Your task to perform on an android device: move an email to a new category in the gmail app Image 0: 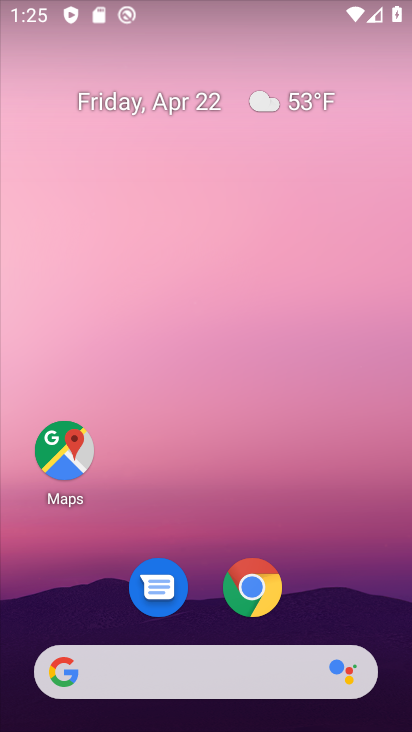
Step 0: drag from (194, 548) to (239, 148)
Your task to perform on an android device: move an email to a new category in the gmail app Image 1: 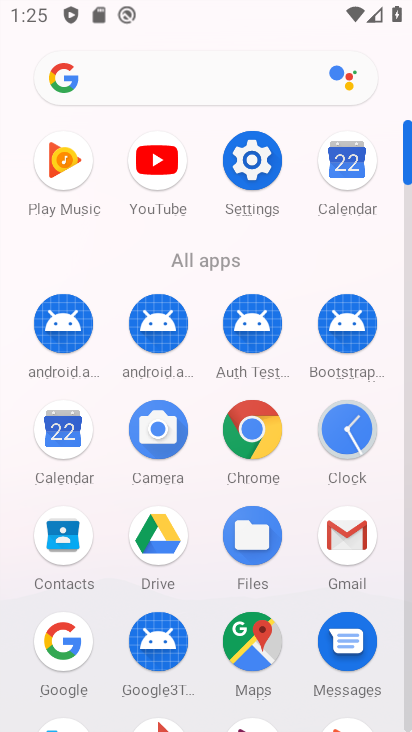
Step 1: click (363, 546)
Your task to perform on an android device: move an email to a new category in the gmail app Image 2: 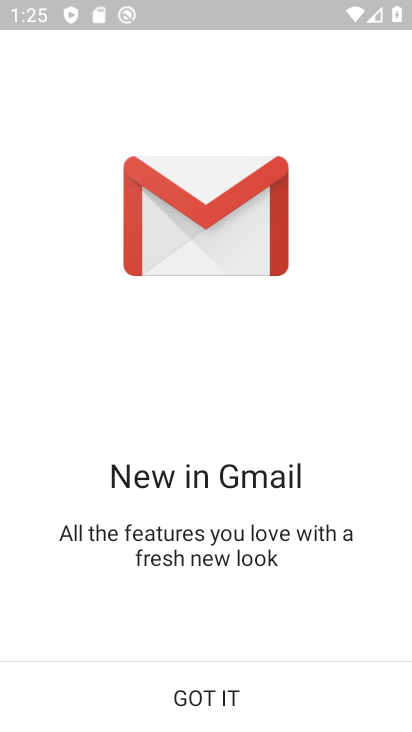
Step 2: click (191, 695)
Your task to perform on an android device: move an email to a new category in the gmail app Image 3: 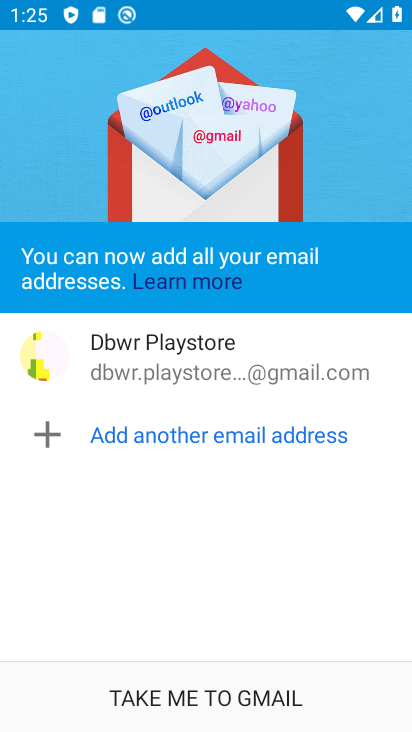
Step 3: click (158, 696)
Your task to perform on an android device: move an email to a new category in the gmail app Image 4: 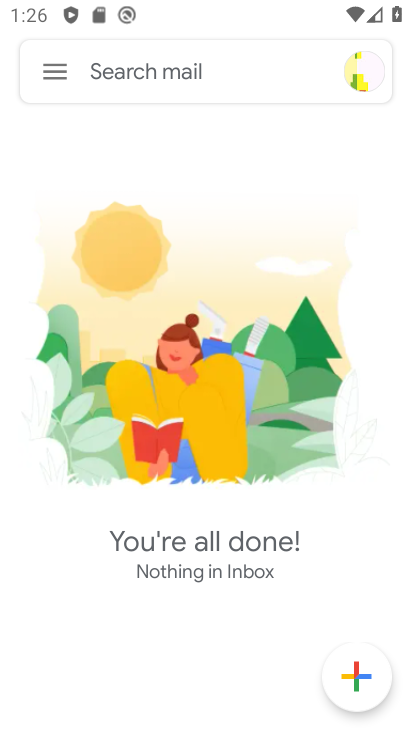
Step 4: click (39, 75)
Your task to perform on an android device: move an email to a new category in the gmail app Image 5: 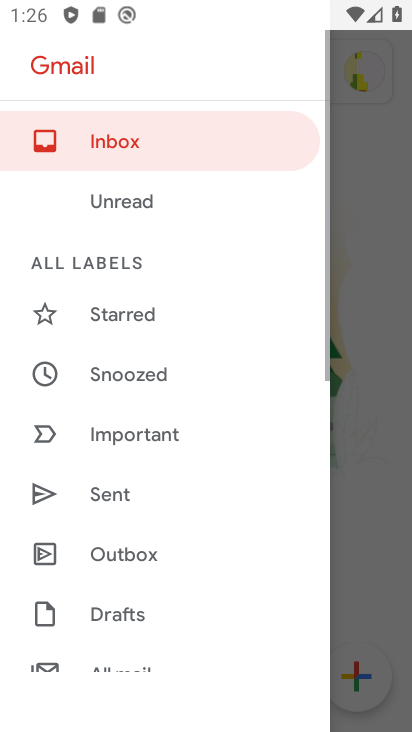
Step 5: drag from (100, 496) to (174, 199)
Your task to perform on an android device: move an email to a new category in the gmail app Image 6: 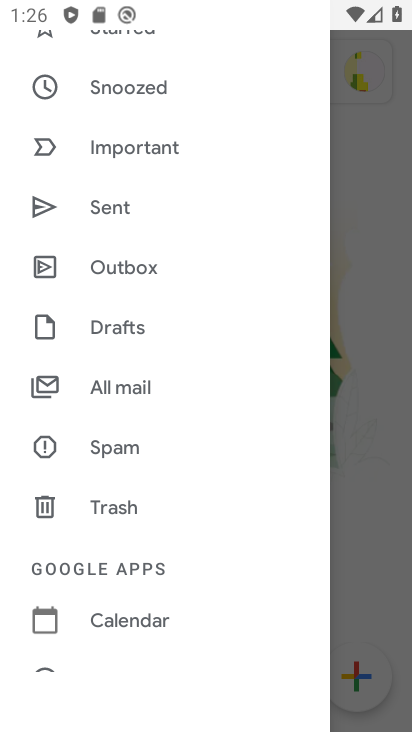
Step 6: click (123, 389)
Your task to perform on an android device: move an email to a new category in the gmail app Image 7: 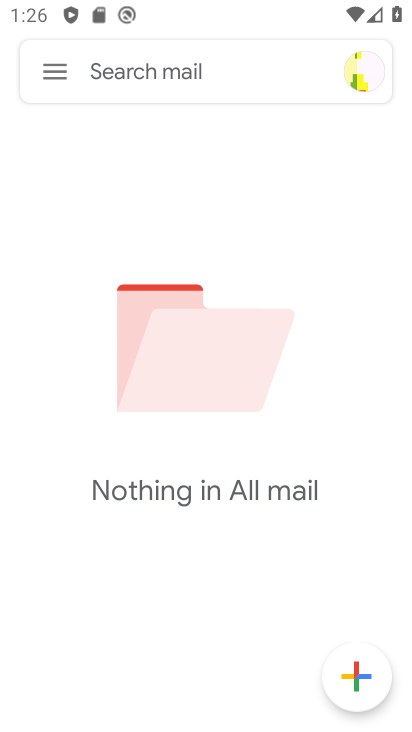
Step 7: task complete